Your task to perform on an android device: turn off javascript in the chrome app Image 0: 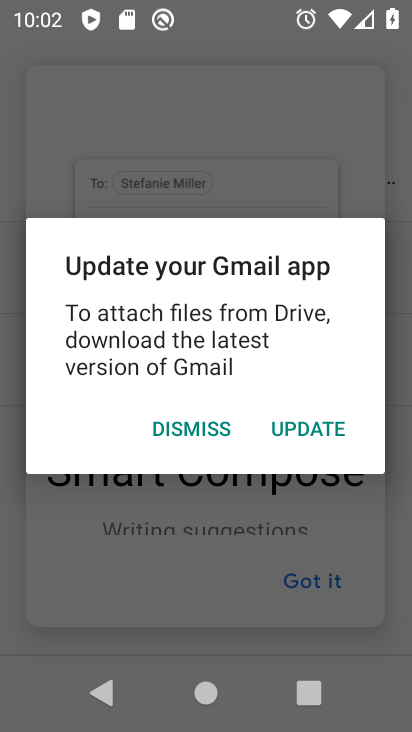
Step 0: click (215, 420)
Your task to perform on an android device: turn off javascript in the chrome app Image 1: 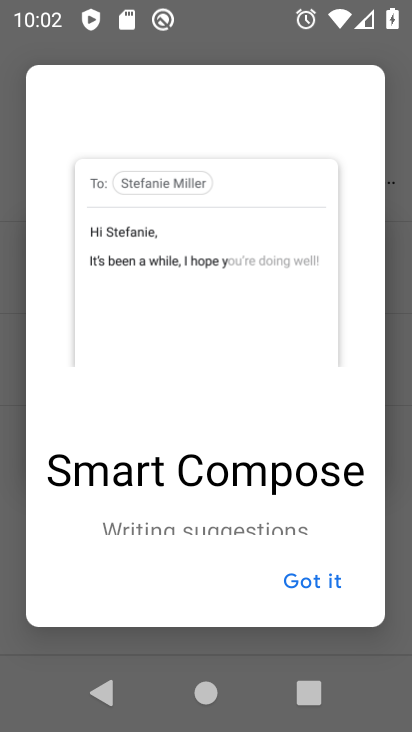
Step 1: click (301, 585)
Your task to perform on an android device: turn off javascript in the chrome app Image 2: 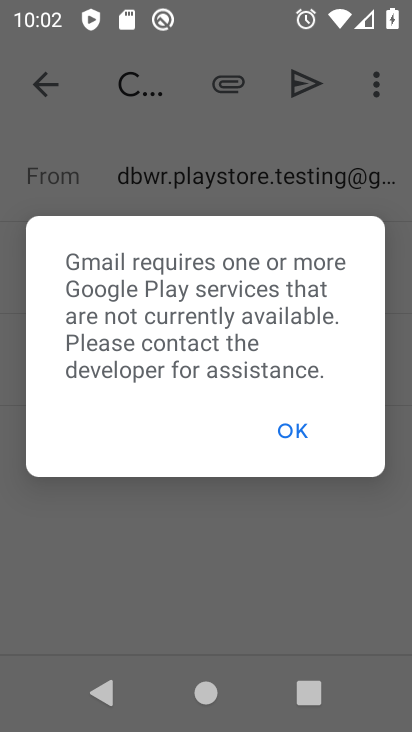
Step 2: click (295, 424)
Your task to perform on an android device: turn off javascript in the chrome app Image 3: 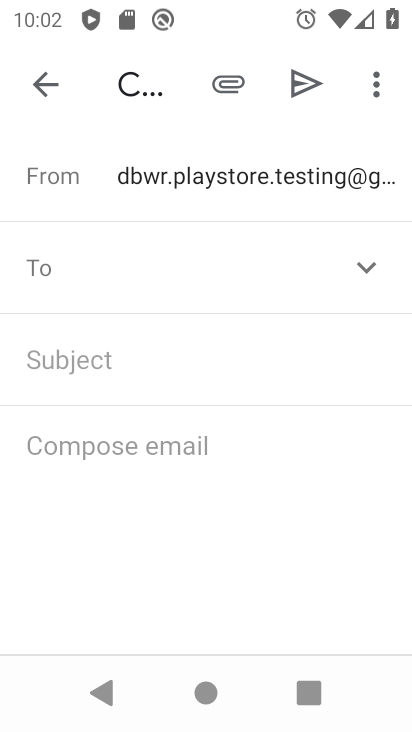
Step 3: click (36, 90)
Your task to perform on an android device: turn off javascript in the chrome app Image 4: 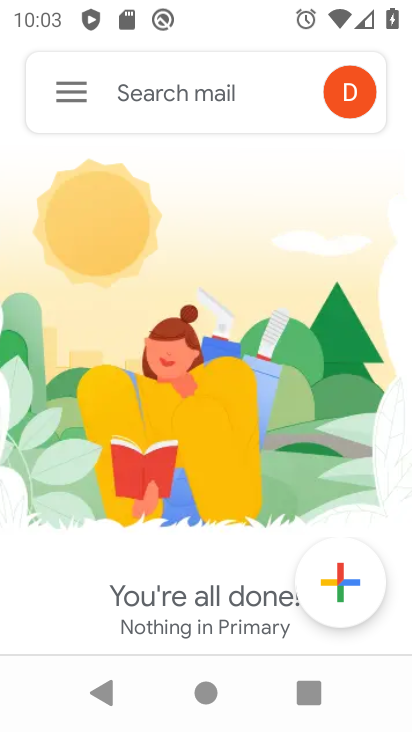
Step 4: press back button
Your task to perform on an android device: turn off javascript in the chrome app Image 5: 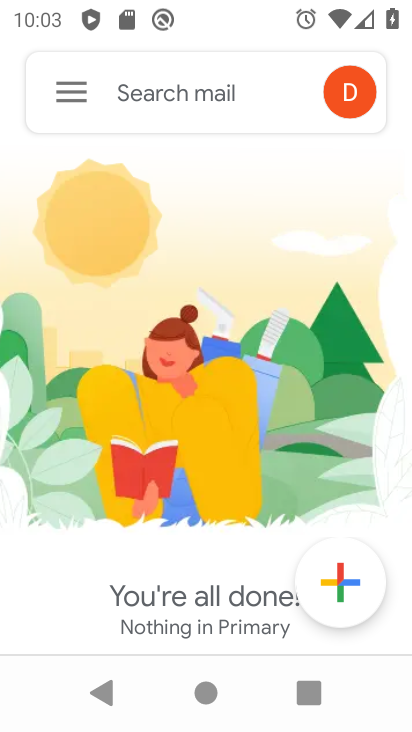
Step 5: press back button
Your task to perform on an android device: turn off javascript in the chrome app Image 6: 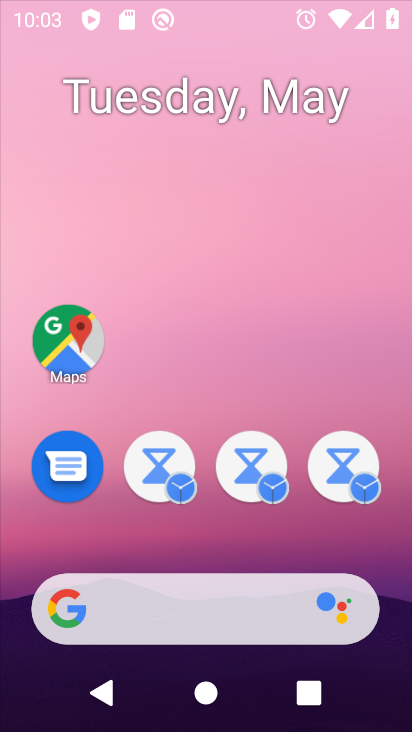
Step 6: press back button
Your task to perform on an android device: turn off javascript in the chrome app Image 7: 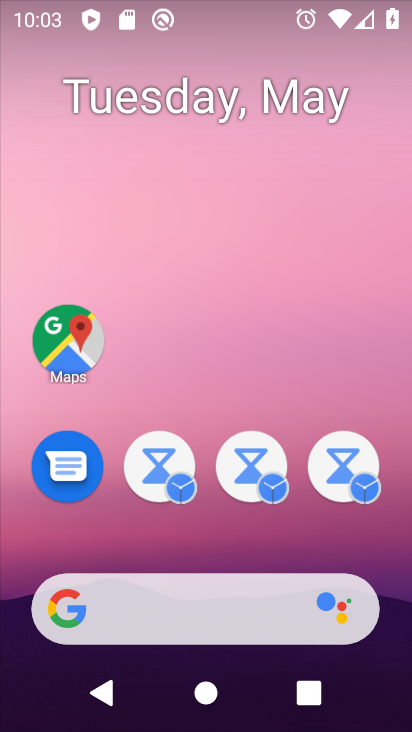
Step 7: press home button
Your task to perform on an android device: turn off javascript in the chrome app Image 8: 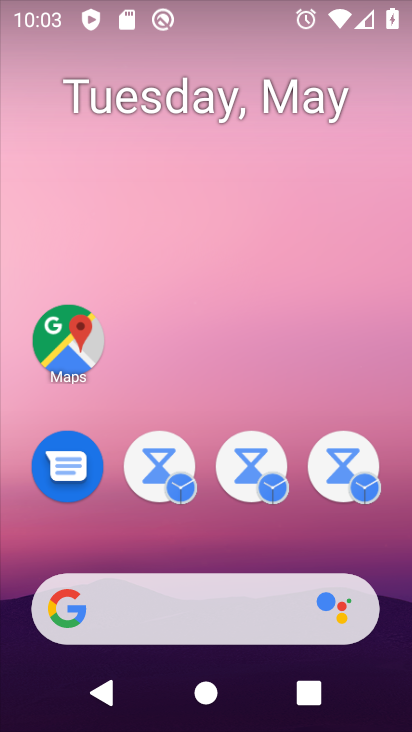
Step 8: drag from (357, 623) to (227, 12)
Your task to perform on an android device: turn off javascript in the chrome app Image 9: 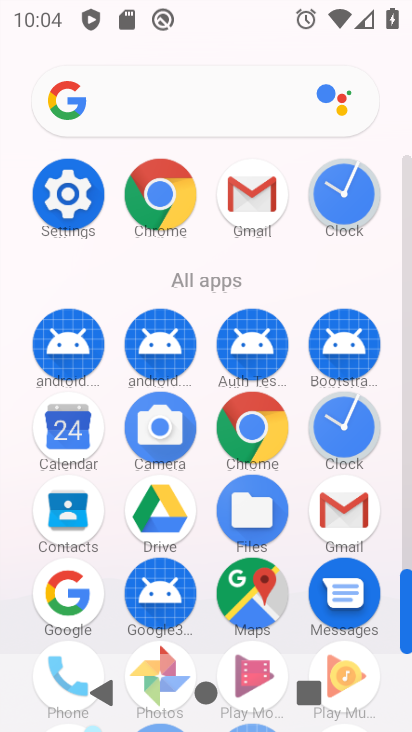
Step 9: click (243, 428)
Your task to perform on an android device: turn off javascript in the chrome app Image 10: 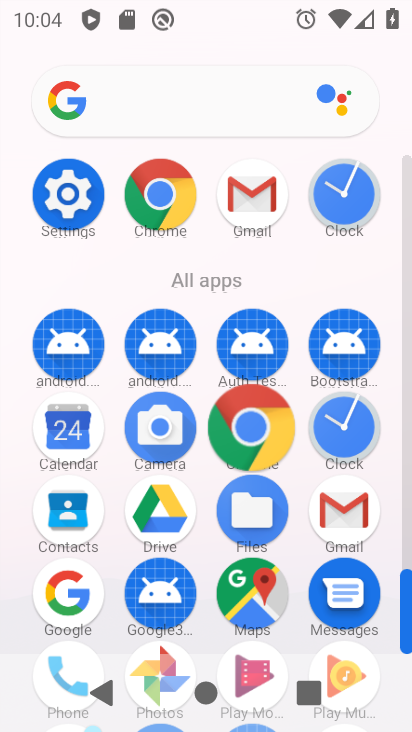
Step 10: click (251, 427)
Your task to perform on an android device: turn off javascript in the chrome app Image 11: 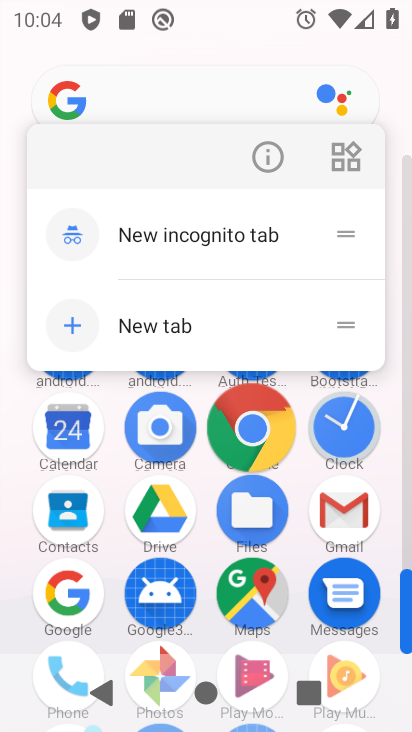
Step 11: click (255, 428)
Your task to perform on an android device: turn off javascript in the chrome app Image 12: 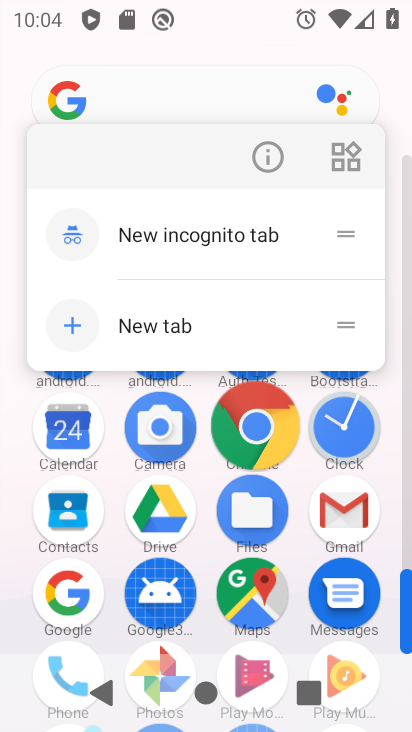
Step 12: click (259, 426)
Your task to perform on an android device: turn off javascript in the chrome app Image 13: 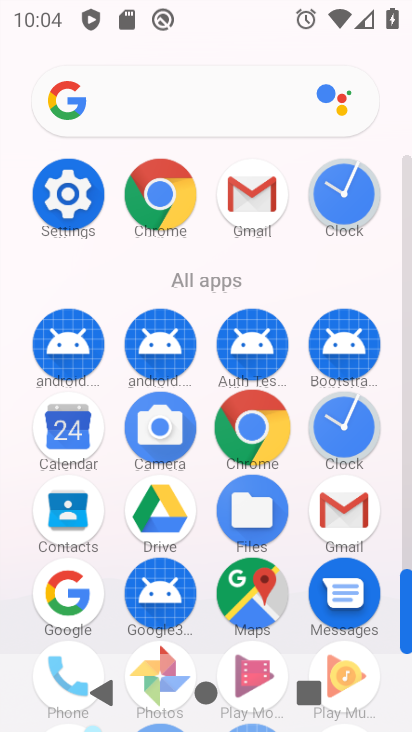
Step 13: click (259, 426)
Your task to perform on an android device: turn off javascript in the chrome app Image 14: 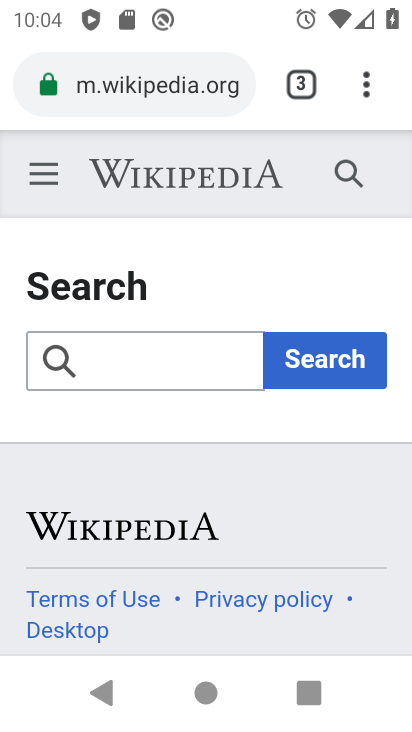
Step 14: drag from (362, 88) to (95, 521)
Your task to perform on an android device: turn off javascript in the chrome app Image 15: 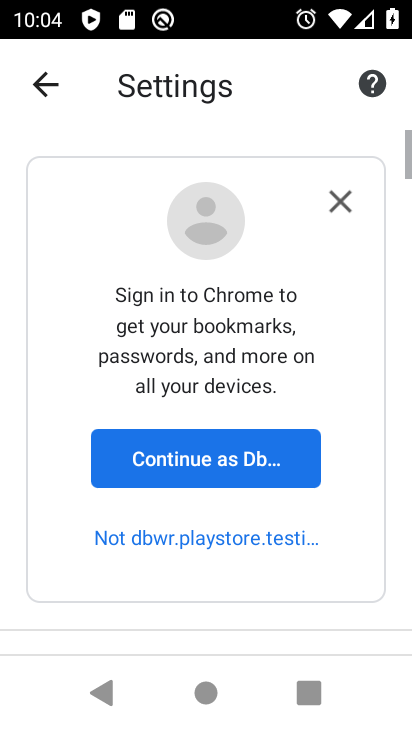
Step 15: drag from (216, 523) to (212, 102)
Your task to perform on an android device: turn off javascript in the chrome app Image 16: 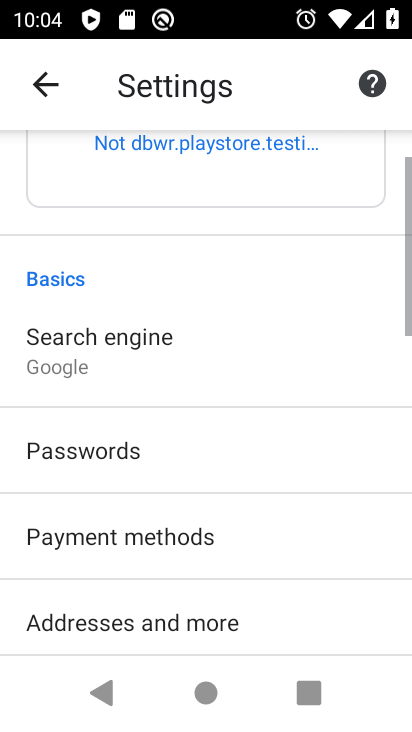
Step 16: drag from (295, 481) to (263, 90)
Your task to perform on an android device: turn off javascript in the chrome app Image 17: 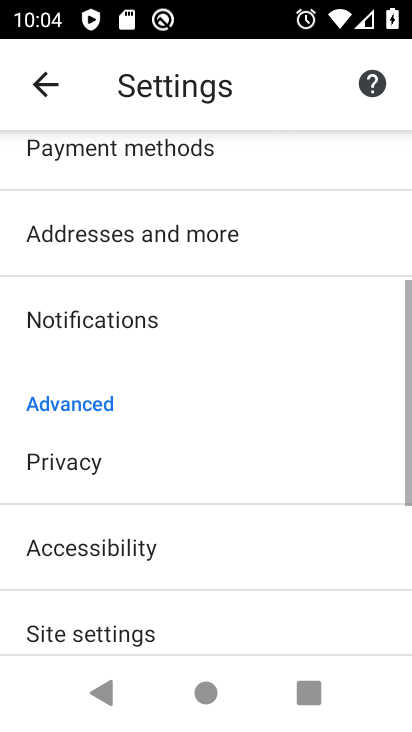
Step 17: drag from (216, 441) to (216, 107)
Your task to perform on an android device: turn off javascript in the chrome app Image 18: 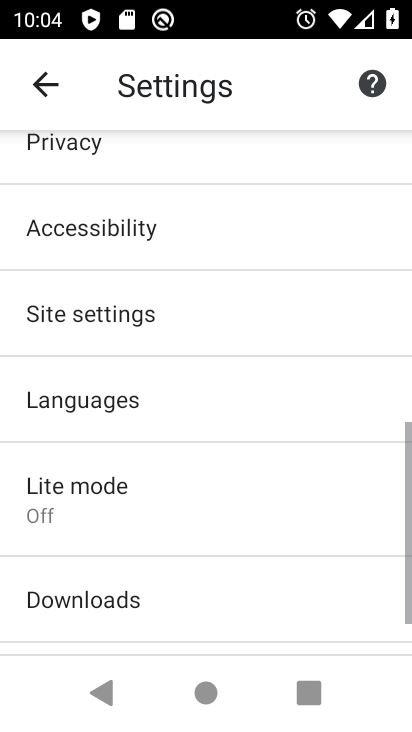
Step 18: drag from (150, 321) to (156, 265)
Your task to perform on an android device: turn off javascript in the chrome app Image 19: 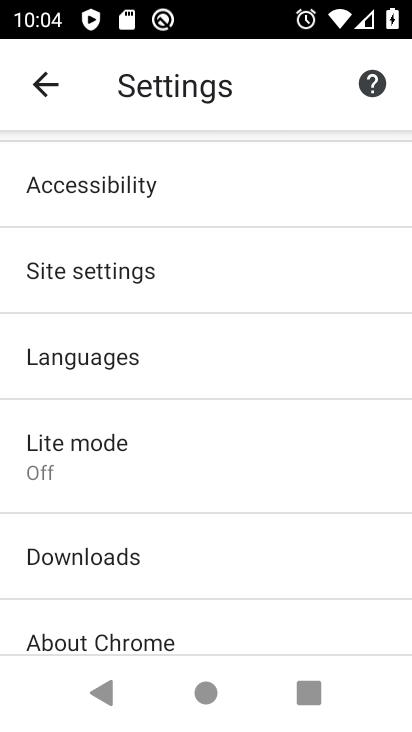
Step 19: drag from (189, 447) to (230, 175)
Your task to perform on an android device: turn off javascript in the chrome app Image 20: 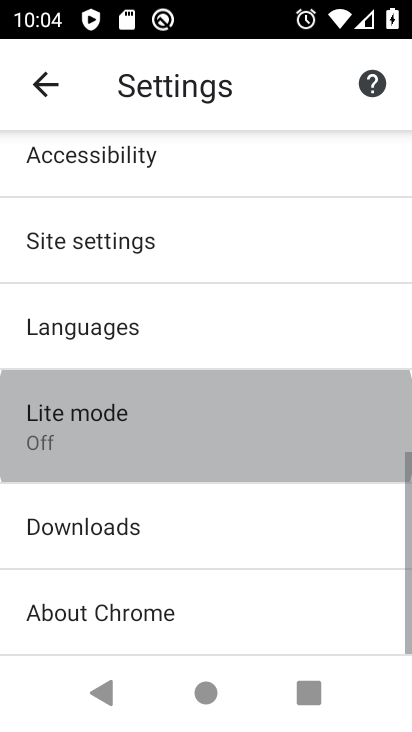
Step 20: drag from (296, 402) to (274, 229)
Your task to perform on an android device: turn off javascript in the chrome app Image 21: 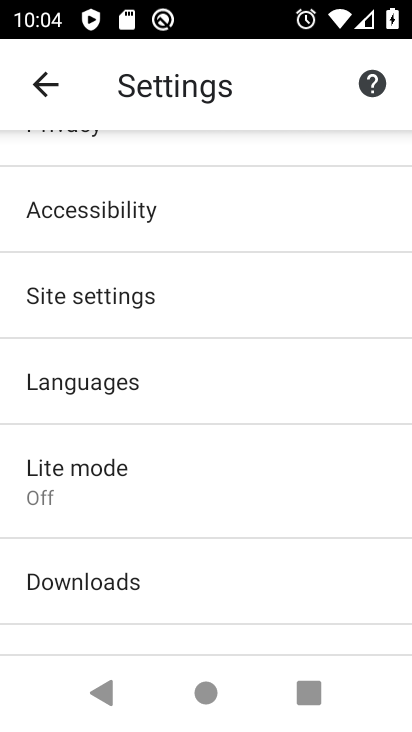
Step 21: drag from (93, 271) to (151, 543)
Your task to perform on an android device: turn off javascript in the chrome app Image 22: 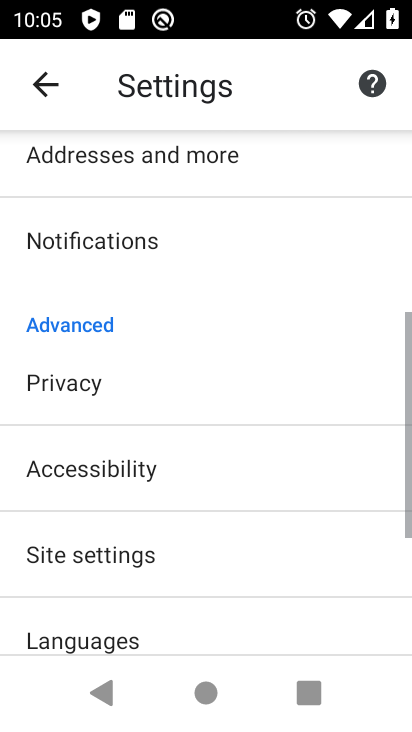
Step 22: drag from (123, 271) to (143, 534)
Your task to perform on an android device: turn off javascript in the chrome app Image 23: 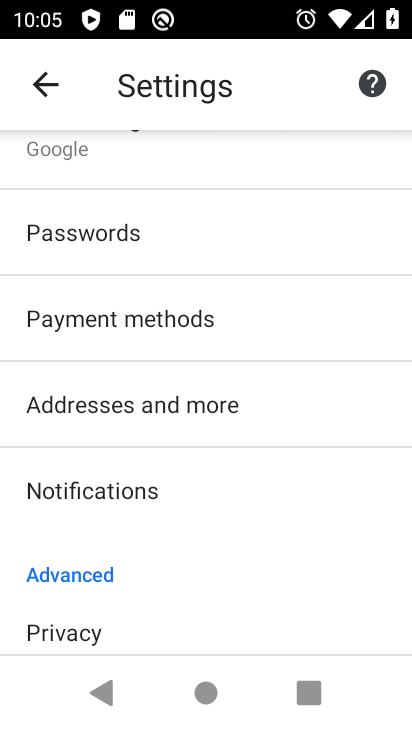
Step 23: drag from (148, 478) to (203, 160)
Your task to perform on an android device: turn off javascript in the chrome app Image 24: 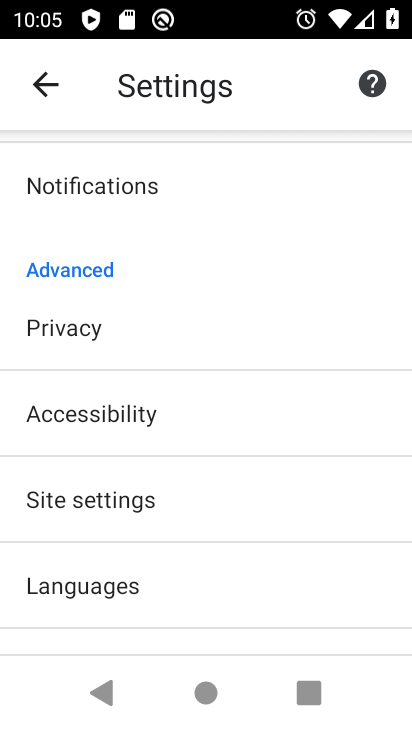
Step 24: click (79, 494)
Your task to perform on an android device: turn off javascript in the chrome app Image 25: 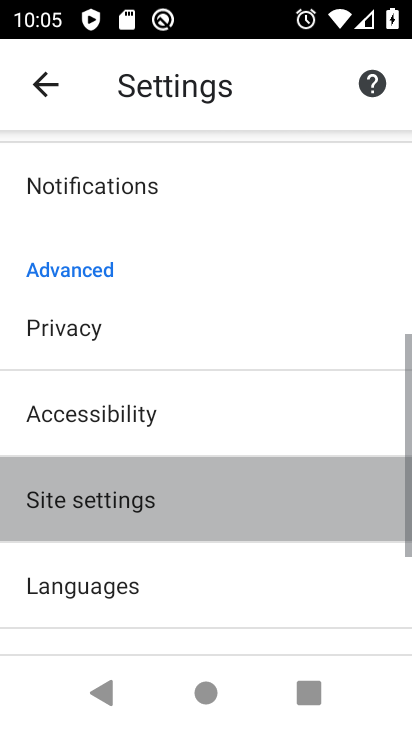
Step 25: click (79, 494)
Your task to perform on an android device: turn off javascript in the chrome app Image 26: 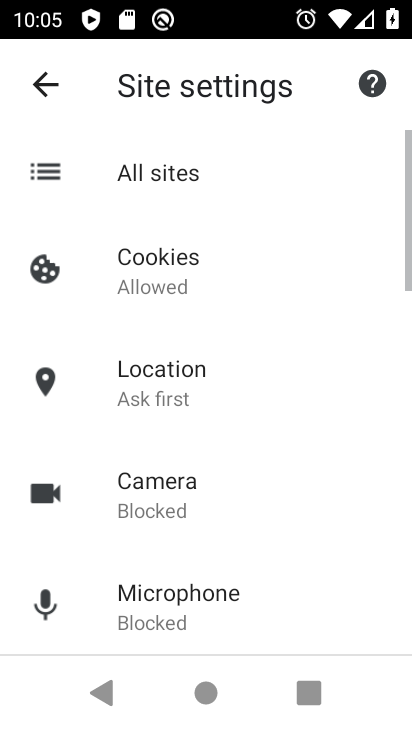
Step 26: drag from (216, 470) to (213, 268)
Your task to perform on an android device: turn off javascript in the chrome app Image 27: 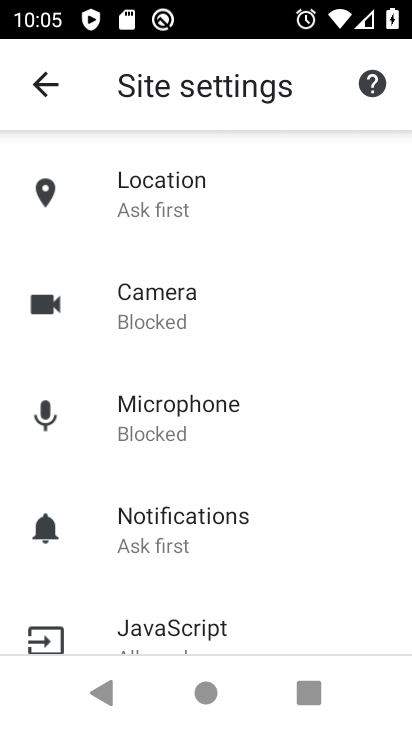
Step 27: drag from (219, 451) to (243, 272)
Your task to perform on an android device: turn off javascript in the chrome app Image 28: 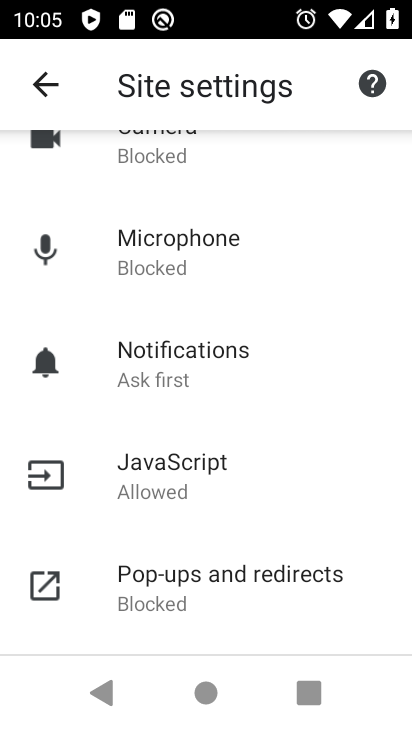
Step 28: click (171, 464)
Your task to perform on an android device: turn off javascript in the chrome app Image 29: 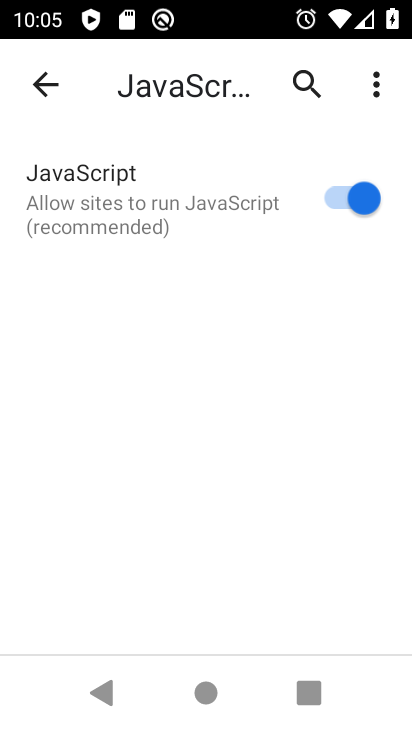
Step 29: click (356, 200)
Your task to perform on an android device: turn off javascript in the chrome app Image 30: 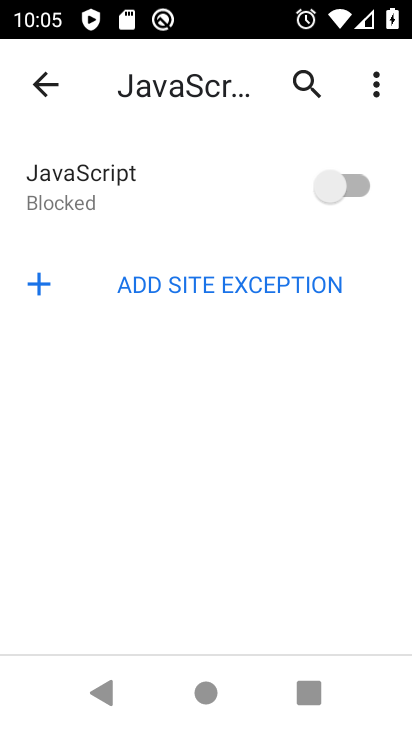
Step 30: task complete